Your task to perform on an android device: turn on the 12-hour format for clock Image 0: 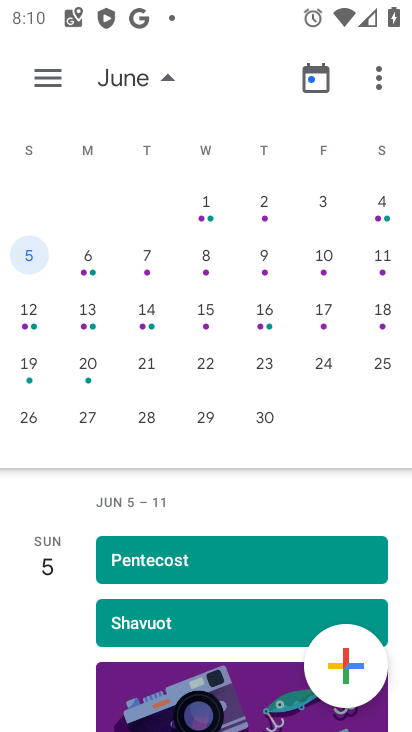
Step 0: press home button
Your task to perform on an android device: turn on the 12-hour format for clock Image 1: 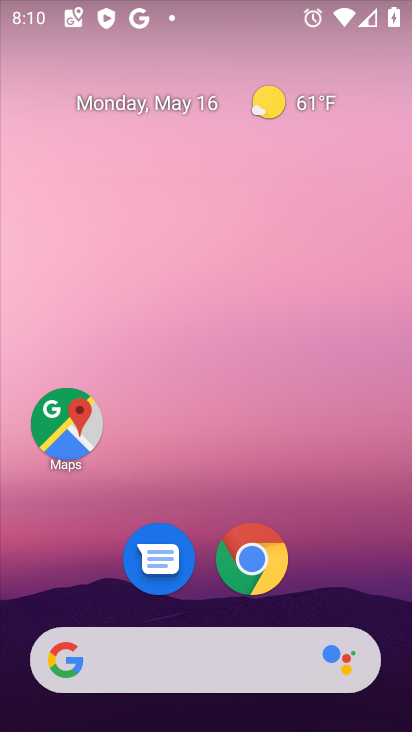
Step 1: drag from (331, 555) to (339, 130)
Your task to perform on an android device: turn on the 12-hour format for clock Image 2: 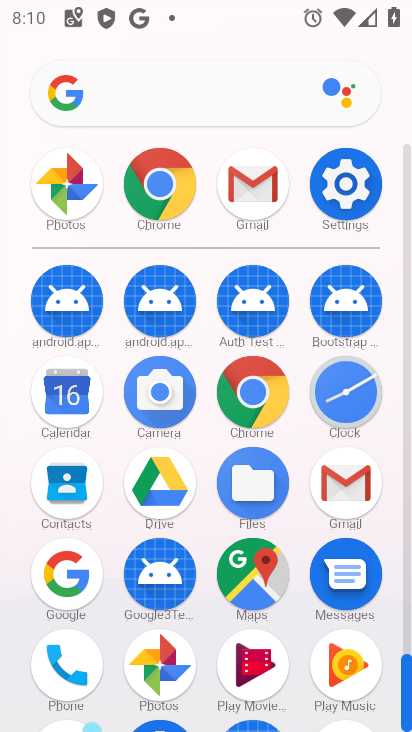
Step 2: click (326, 396)
Your task to perform on an android device: turn on the 12-hour format for clock Image 3: 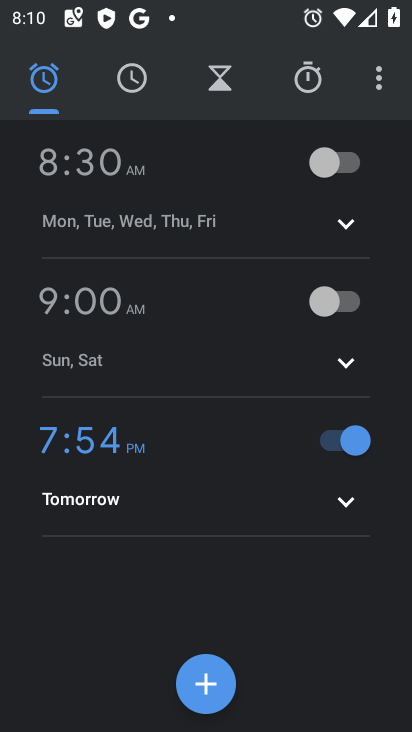
Step 3: click (377, 83)
Your task to perform on an android device: turn on the 12-hour format for clock Image 4: 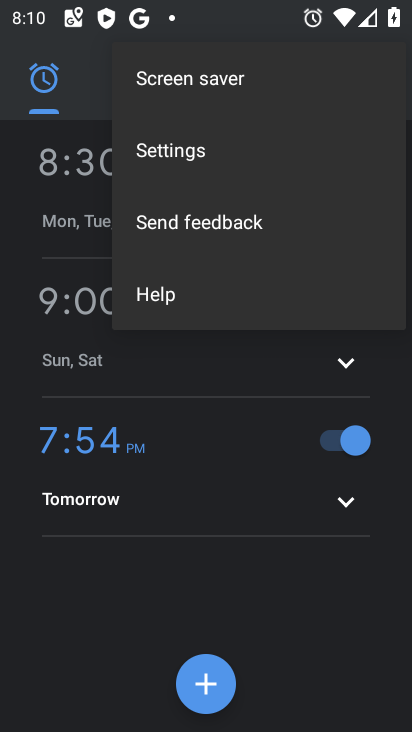
Step 4: click (252, 156)
Your task to perform on an android device: turn on the 12-hour format for clock Image 5: 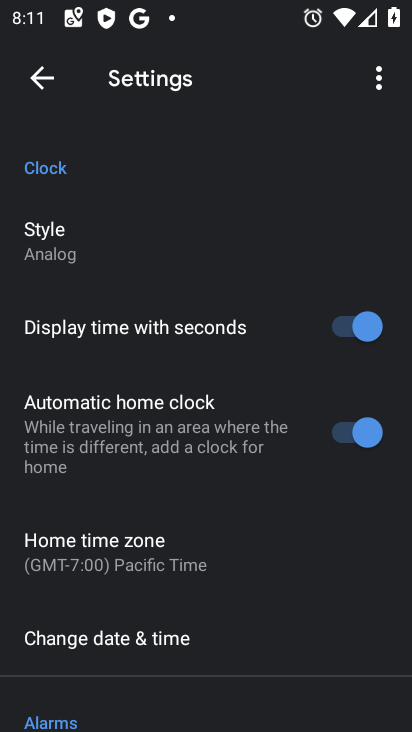
Step 5: click (213, 642)
Your task to perform on an android device: turn on the 12-hour format for clock Image 6: 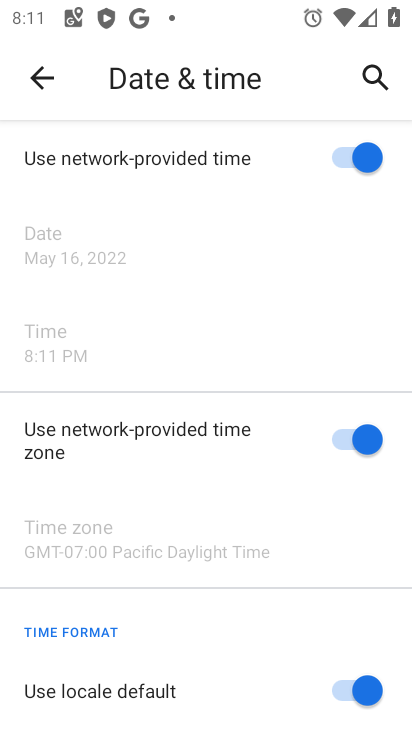
Step 6: task complete